Your task to perform on an android device: Clear the cart on costco.com. Search for "usb-c to usb-b" on costco.com, select the first entry, and add it to the cart. Image 0: 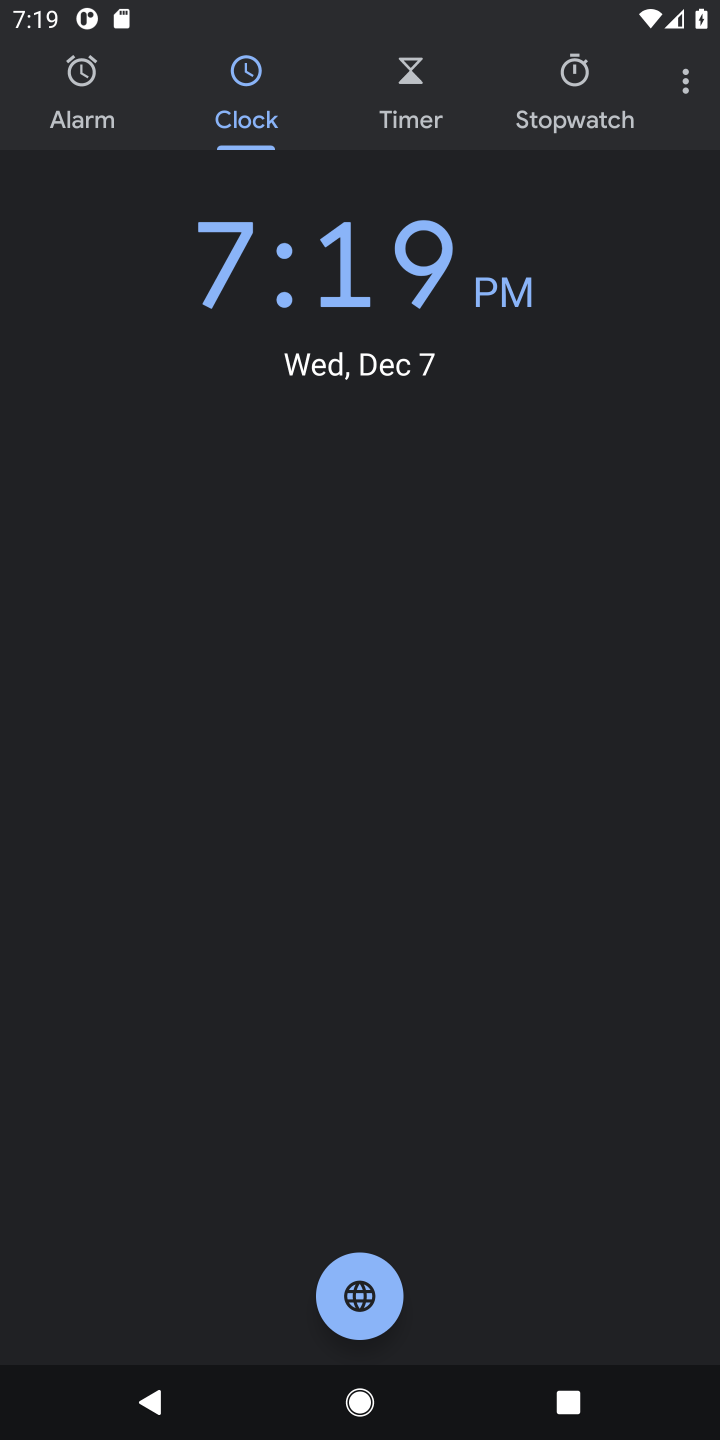
Step 0: press home button
Your task to perform on an android device: Clear the cart on costco.com. Search for "usb-c to usb-b" on costco.com, select the first entry, and add it to the cart. Image 1: 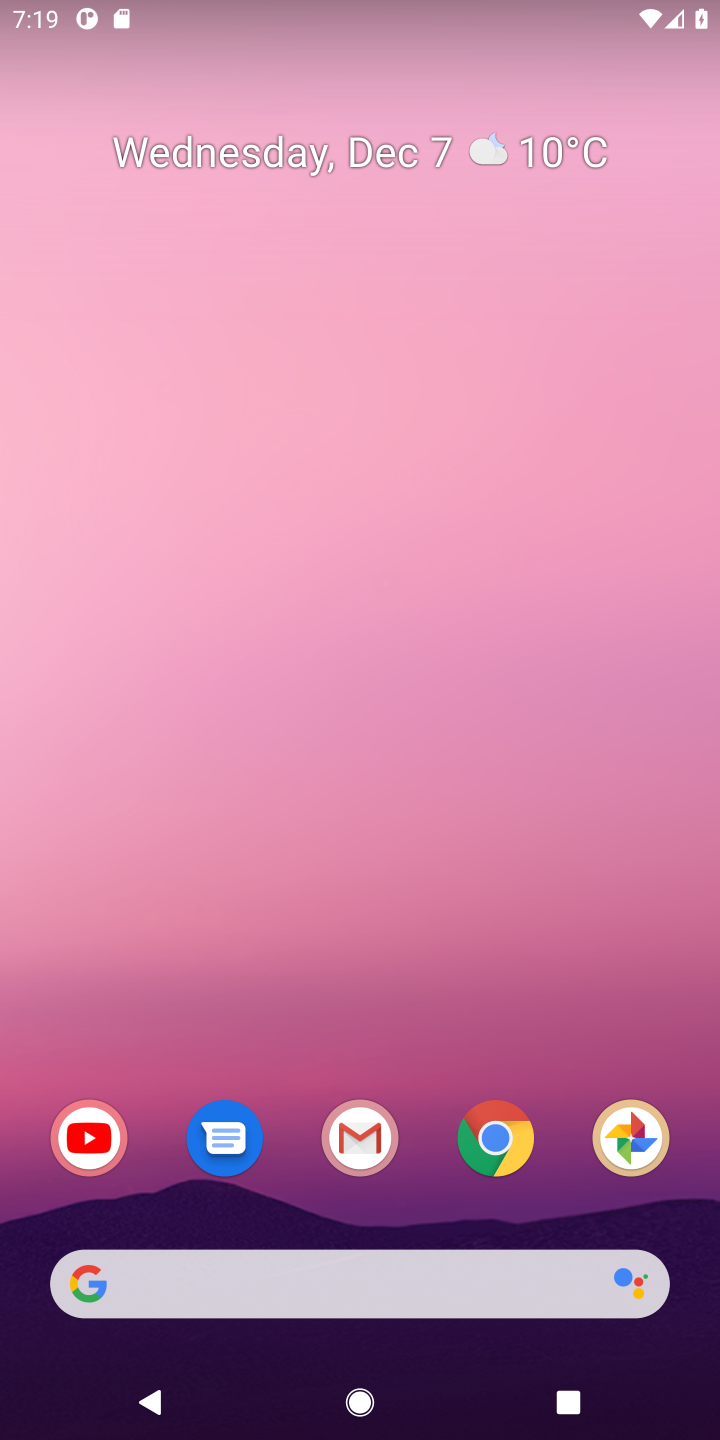
Step 1: click (180, 1287)
Your task to perform on an android device: Clear the cart on costco.com. Search for "usb-c to usb-b" on costco.com, select the first entry, and add it to the cart. Image 2: 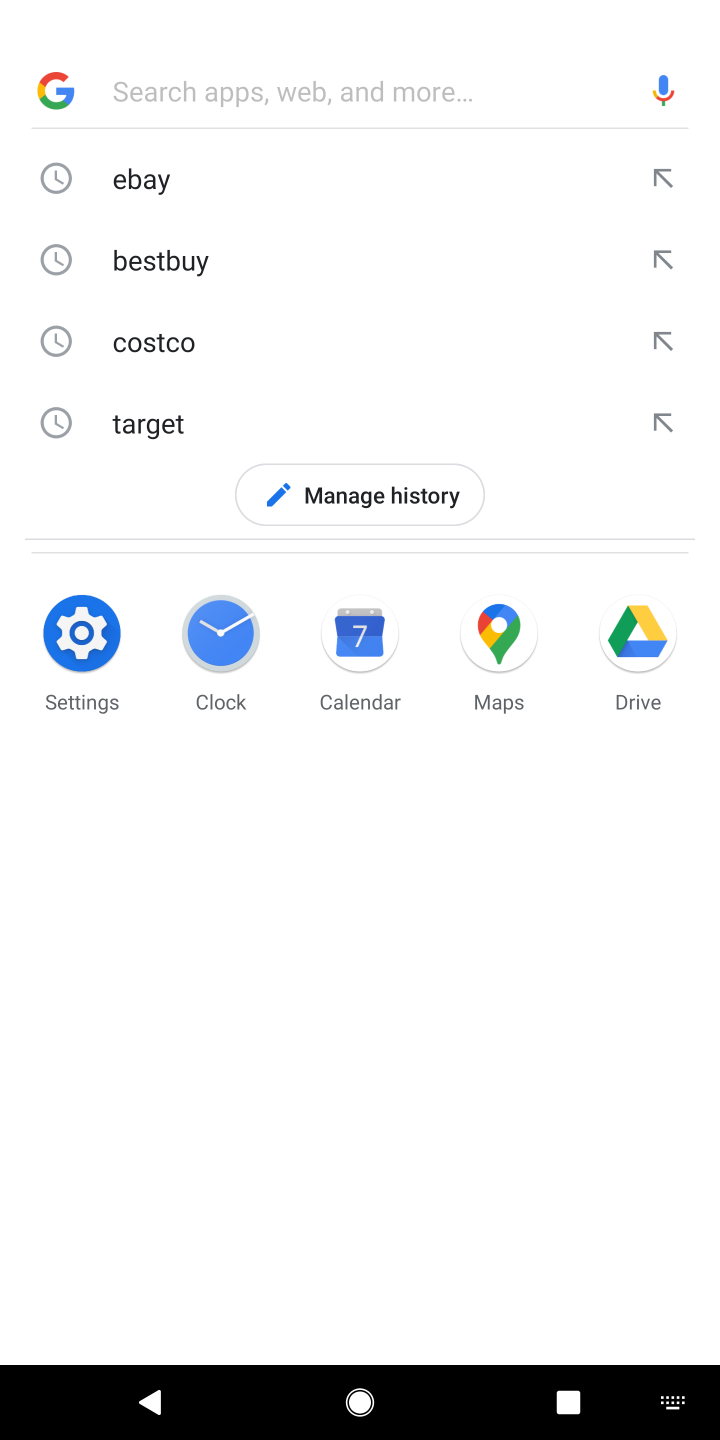
Step 2: type "costco.com"
Your task to perform on an android device: Clear the cart on costco.com. Search for "usb-c to usb-b" on costco.com, select the first entry, and add it to the cart. Image 3: 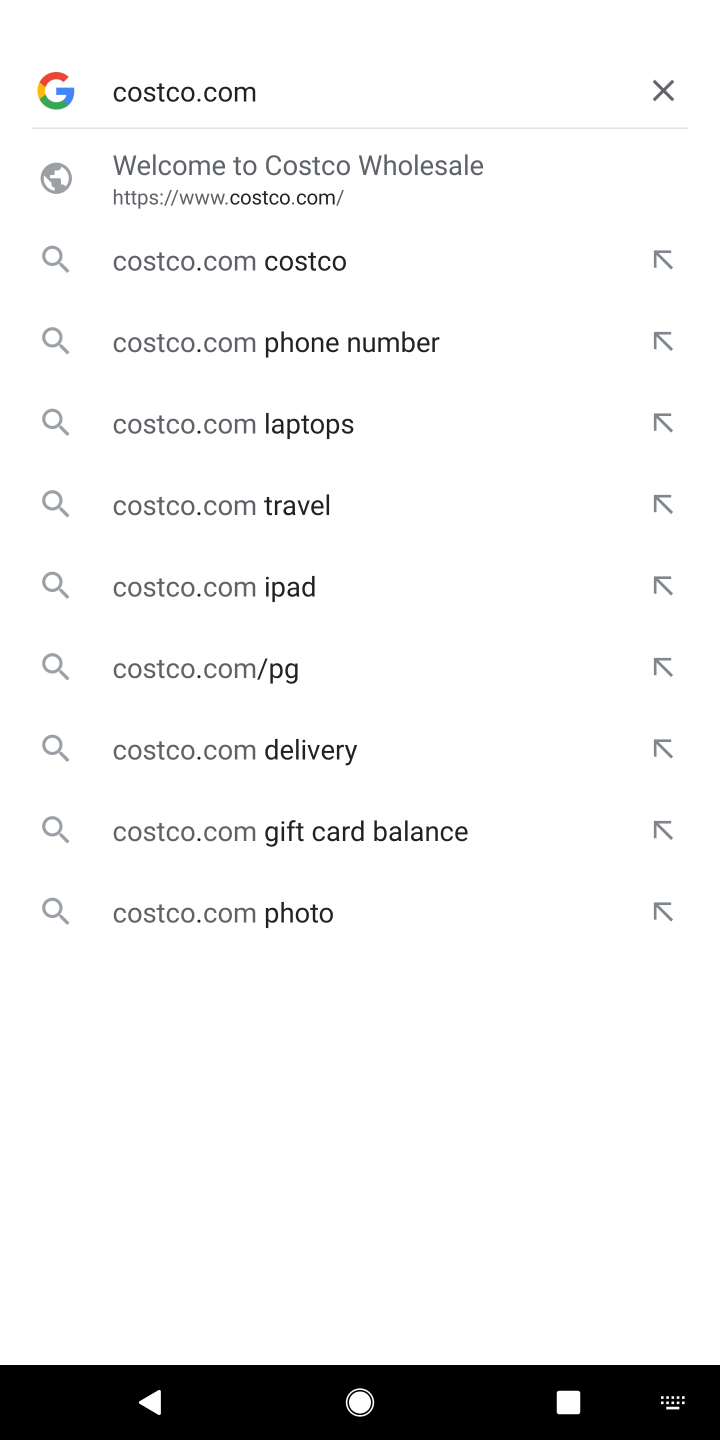
Step 3: press enter
Your task to perform on an android device: Clear the cart on costco.com. Search for "usb-c to usb-b" on costco.com, select the first entry, and add it to the cart. Image 4: 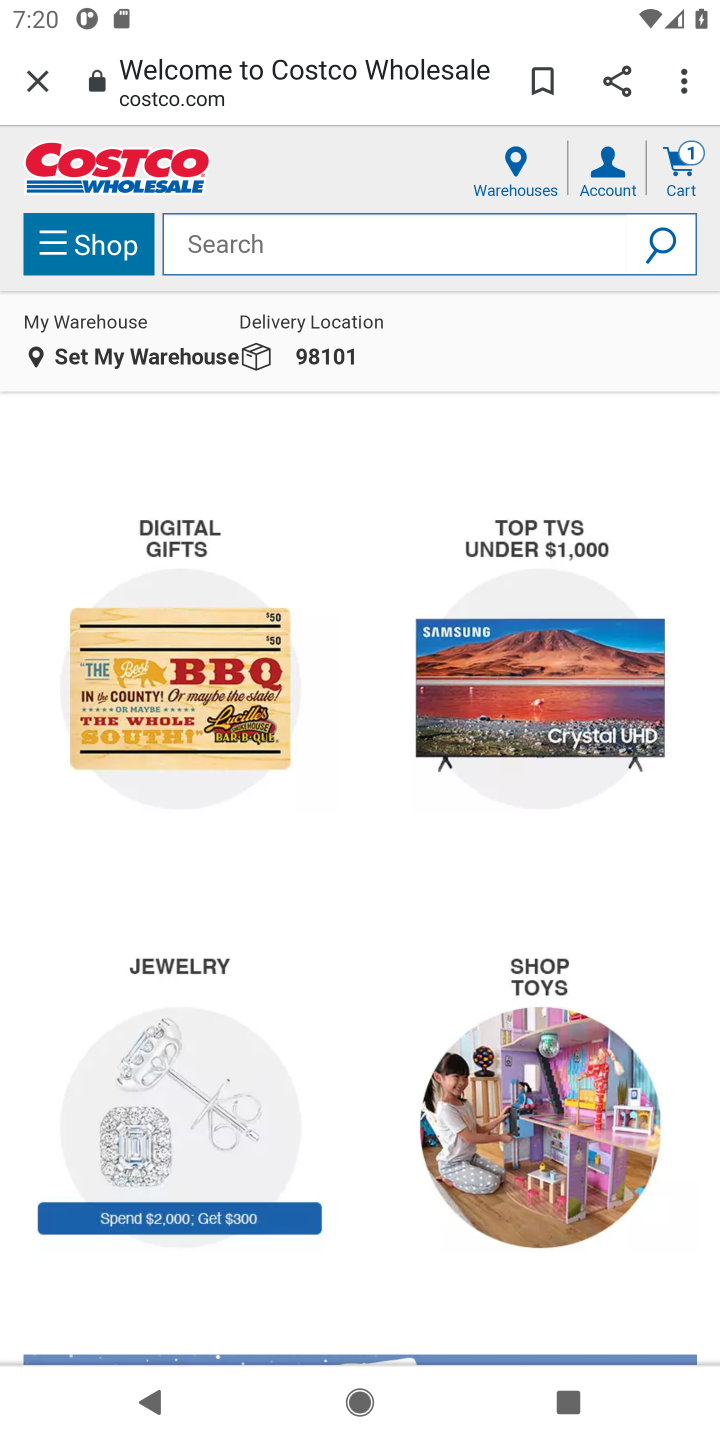
Step 4: click (672, 164)
Your task to perform on an android device: Clear the cart on costco.com. Search for "usb-c to usb-b" on costco.com, select the first entry, and add it to the cart. Image 5: 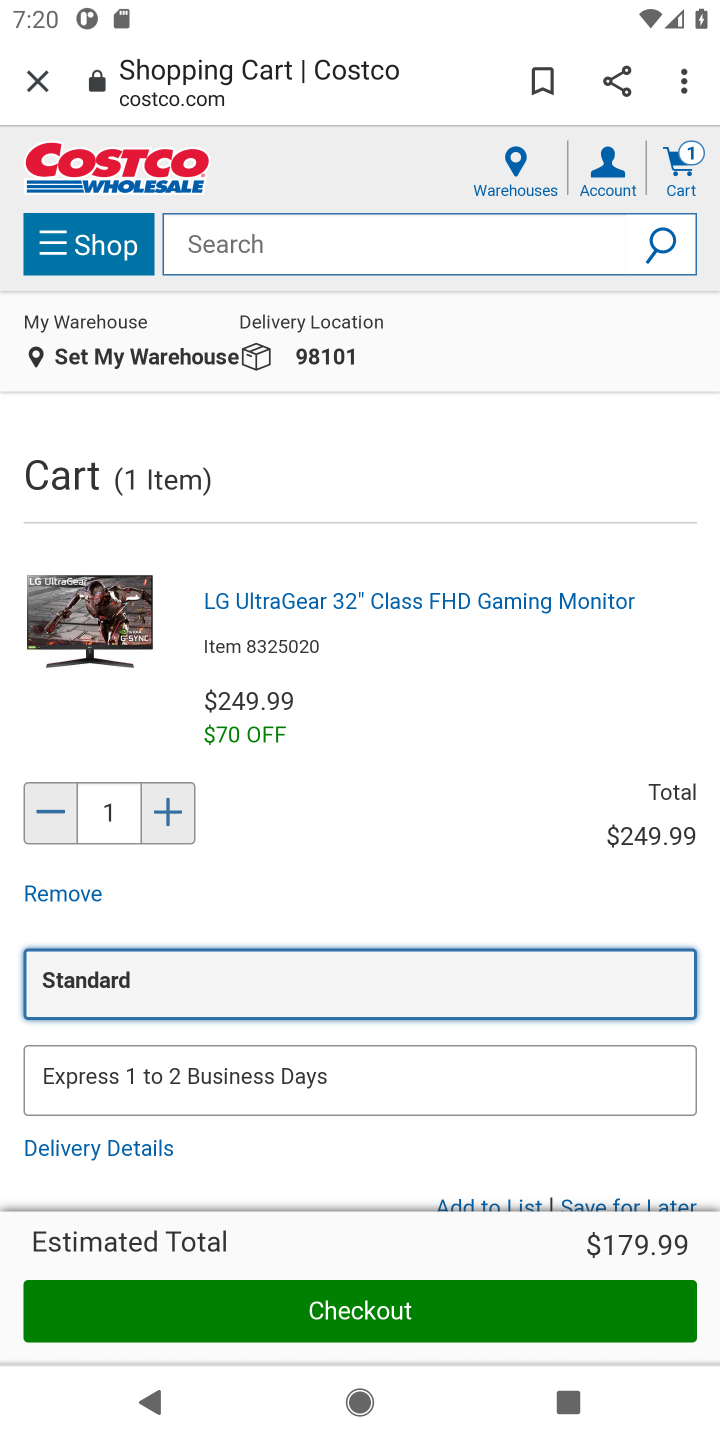
Step 5: drag from (404, 1105) to (417, 570)
Your task to perform on an android device: Clear the cart on costco.com. Search for "usb-c to usb-b" on costco.com, select the first entry, and add it to the cart. Image 6: 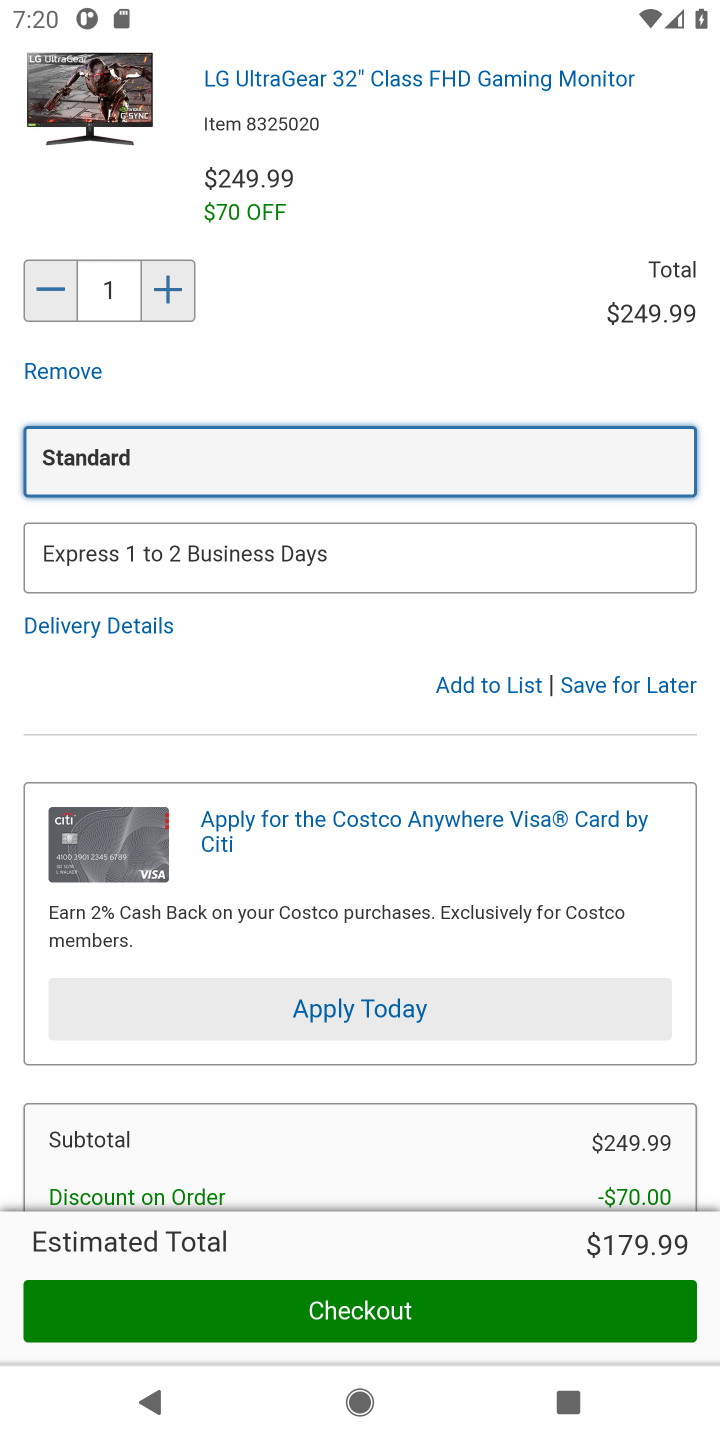
Step 6: drag from (375, 873) to (370, 393)
Your task to perform on an android device: Clear the cart on costco.com. Search for "usb-c to usb-b" on costco.com, select the first entry, and add it to the cart. Image 7: 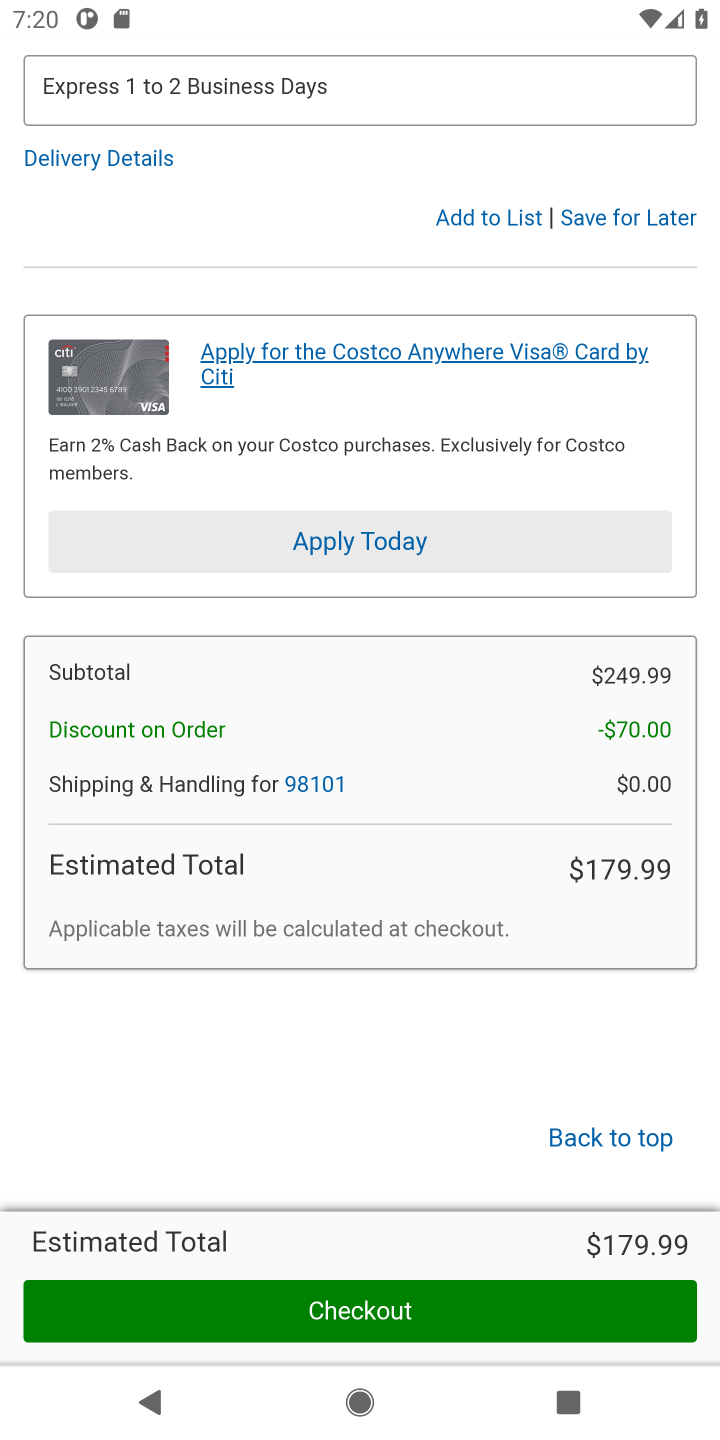
Step 7: drag from (371, 192) to (319, 772)
Your task to perform on an android device: Clear the cart on costco.com. Search for "usb-c to usb-b" on costco.com, select the first entry, and add it to the cart. Image 8: 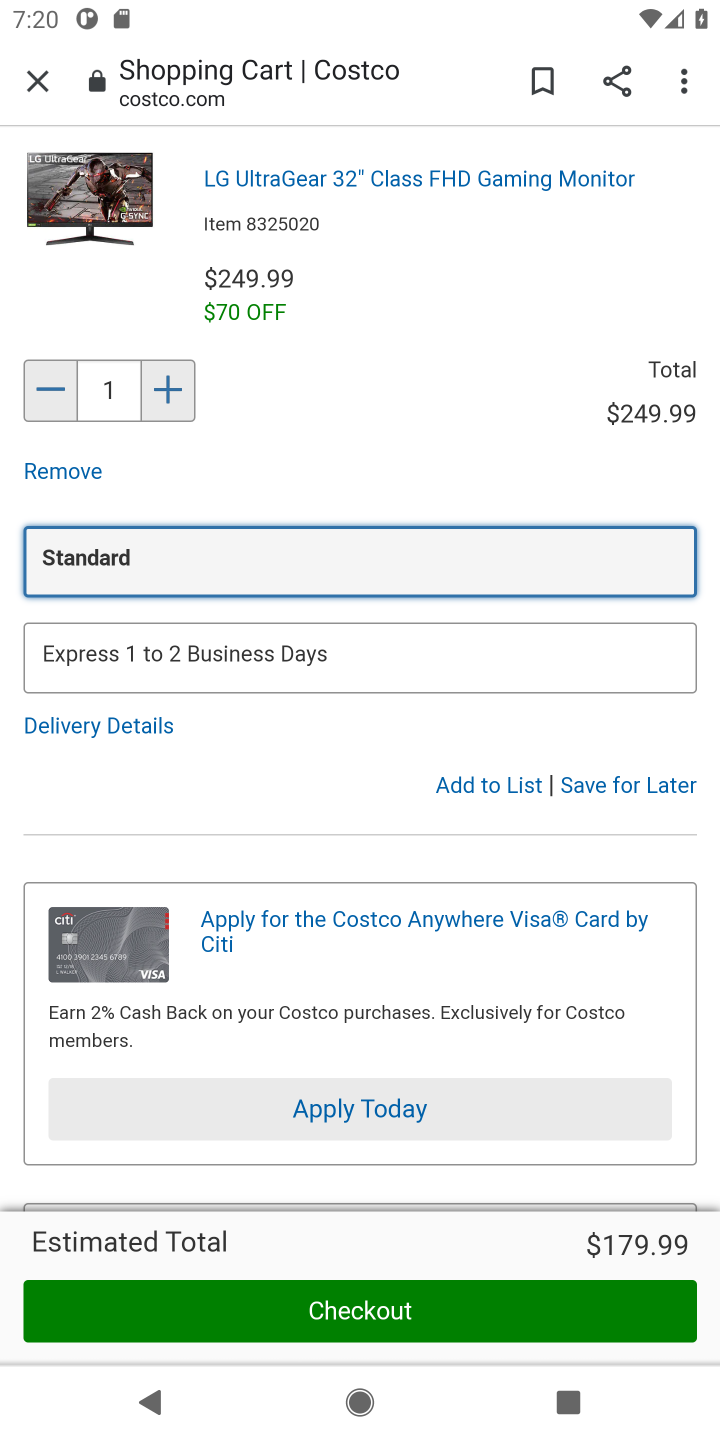
Step 8: click (63, 469)
Your task to perform on an android device: Clear the cart on costco.com. Search for "usb-c to usb-b" on costco.com, select the first entry, and add it to the cart. Image 9: 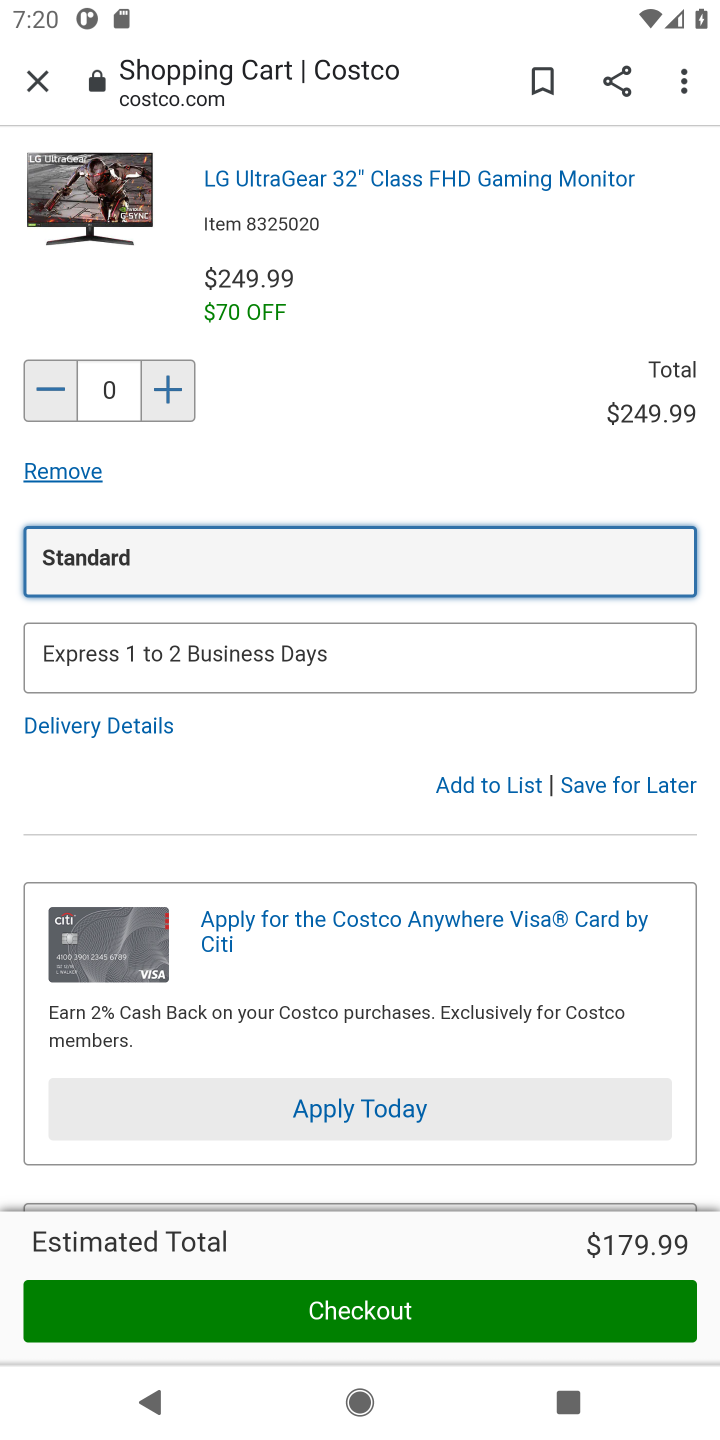
Step 9: click (52, 466)
Your task to perform on an android device: Clear the cart on costco.com. Search for "usb-c to usb-b" on costco.com, select the first entry, and add it to the cart. Image 10: 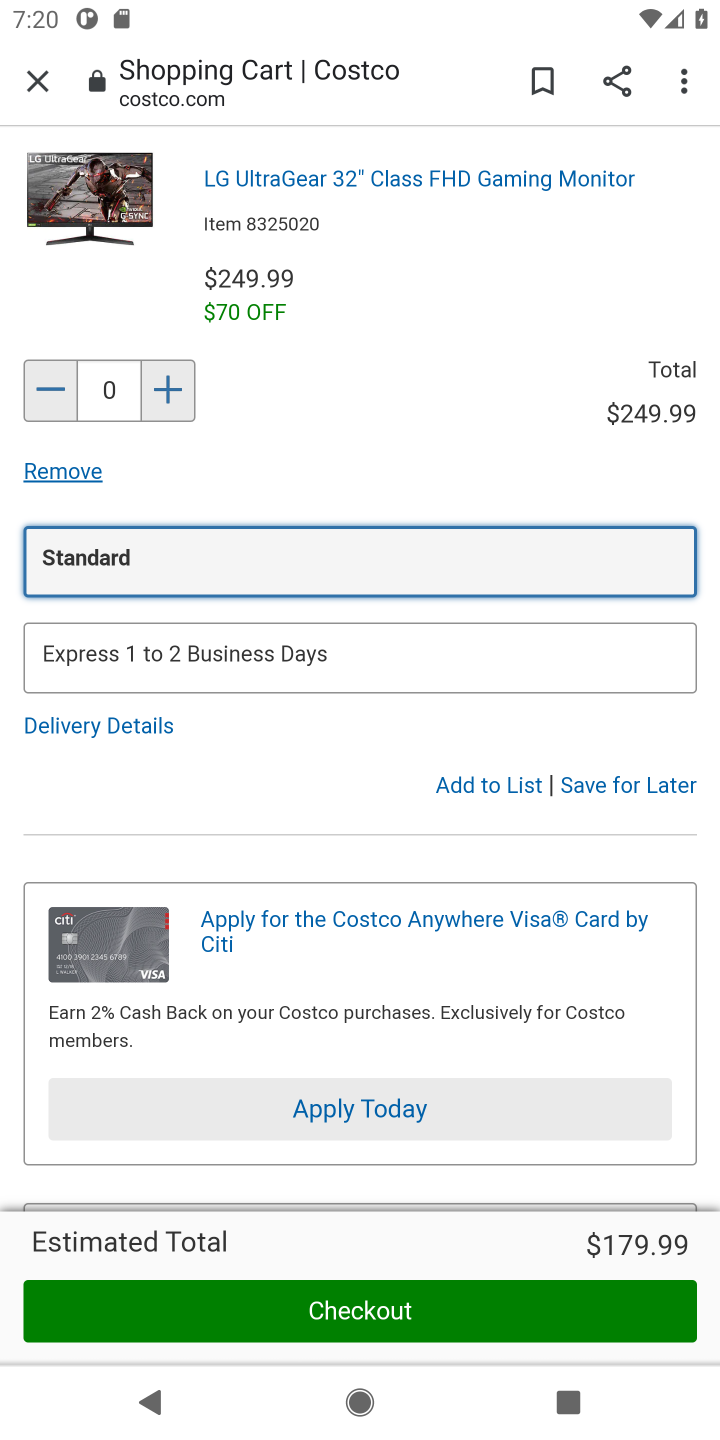
Step 10: drag from (467, 394) to (422, 897)
Your task to perform on an android device: Clear the cart on costco.com. Search for "usb-c to usb-b" on costco.com, select the first entry, and add it to the cart. Image 11: 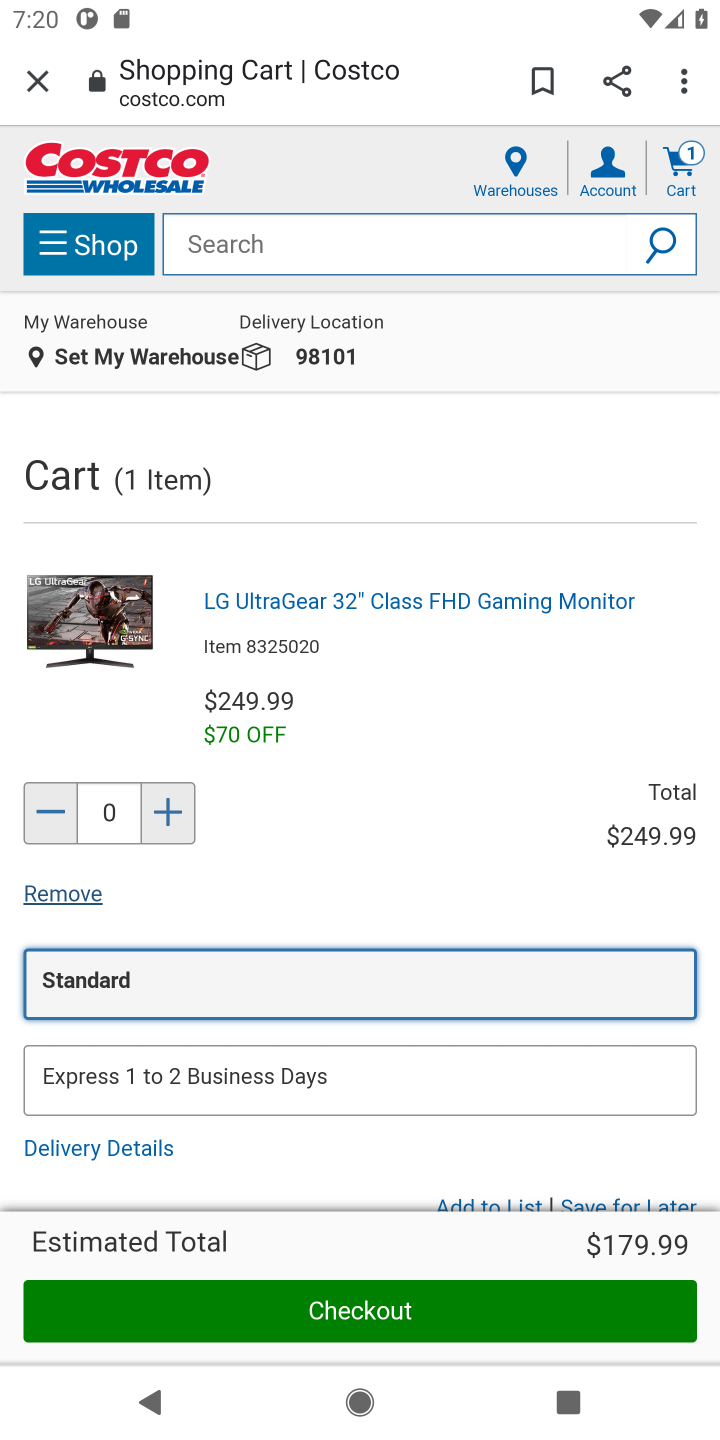
Step 11: click (57, 898)
Your task to perform on an android device: Clear the cart on costco.com. Search for "usb-c to usb-b" on costco.com, select the first entry, and add it to the cart. Image 12: 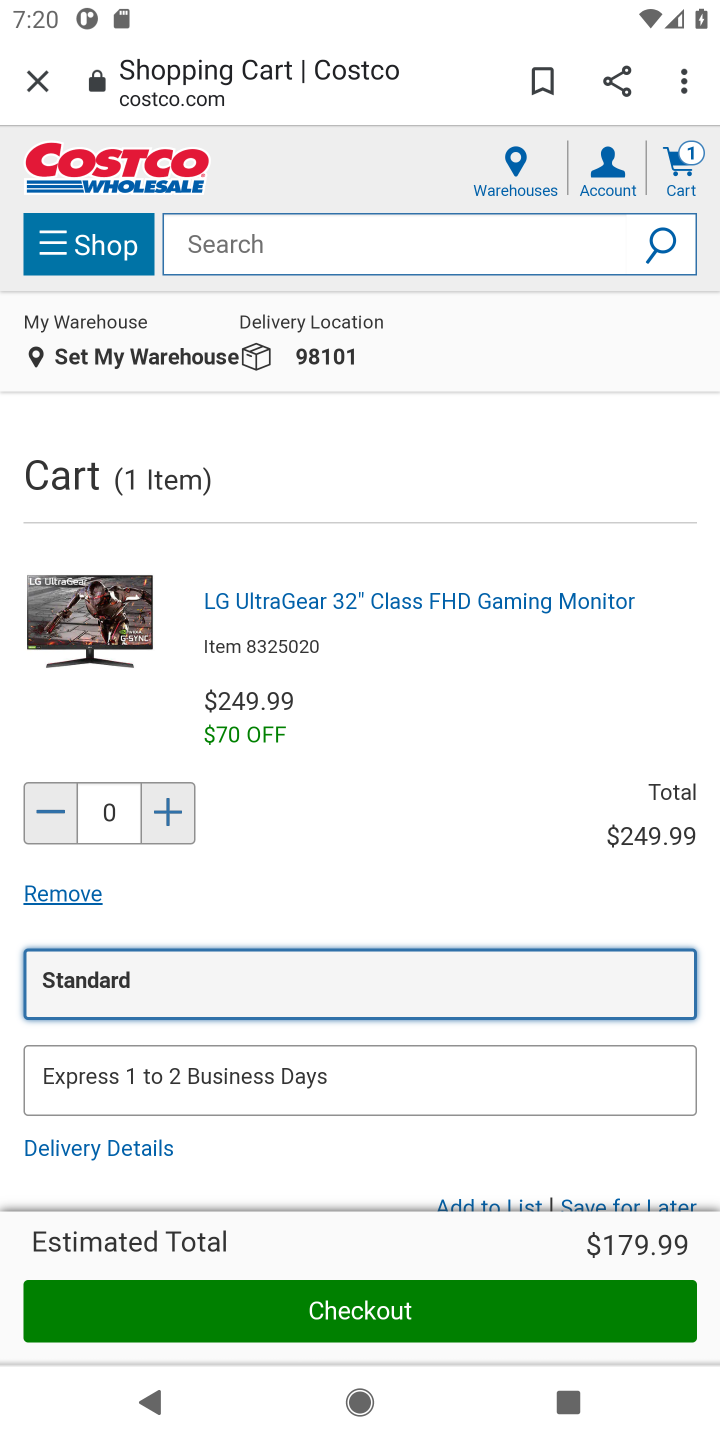
Step 12: click (54, 896)
Your task to perform on an android device: Clear the cart on costco.com. Search for "usb-c to usb-b" on costco.com, select the first entry, and add it to the cart. Image 13: 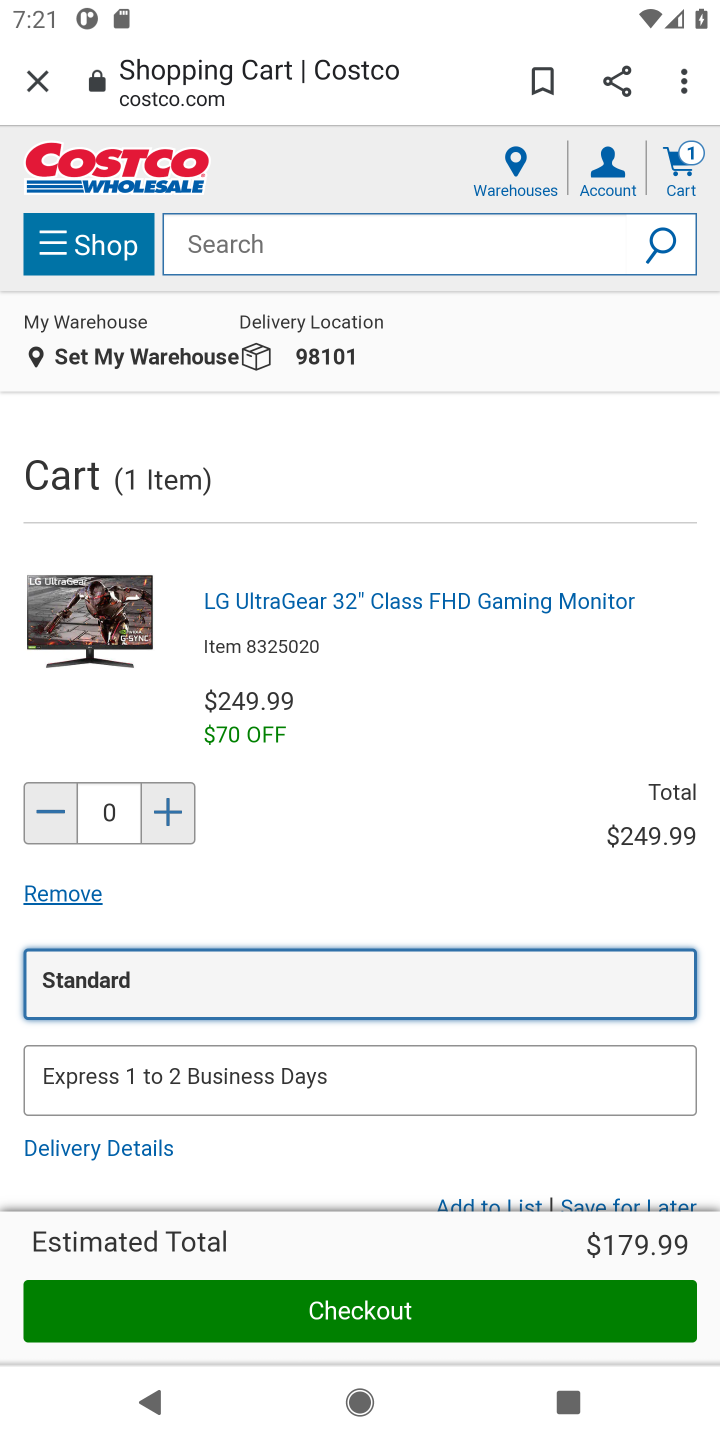
Step 13: task complete